Your task to perform on an android device: turn on sleep mode Image 0: 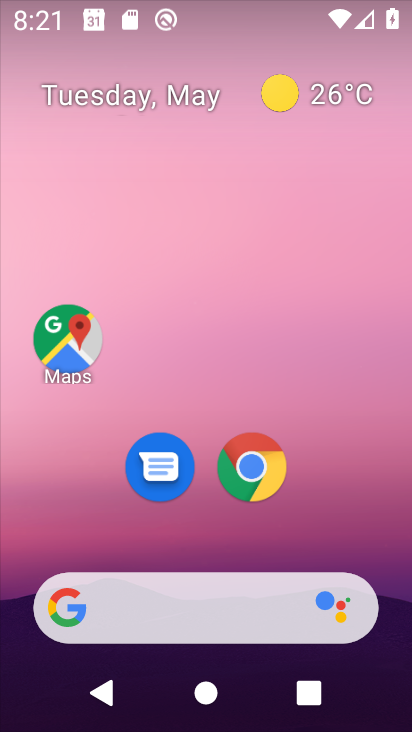
Step 0: drag from (396, 709) to (361, 248)
Your task to perform on an android device: turn on sleep mode Image 1: 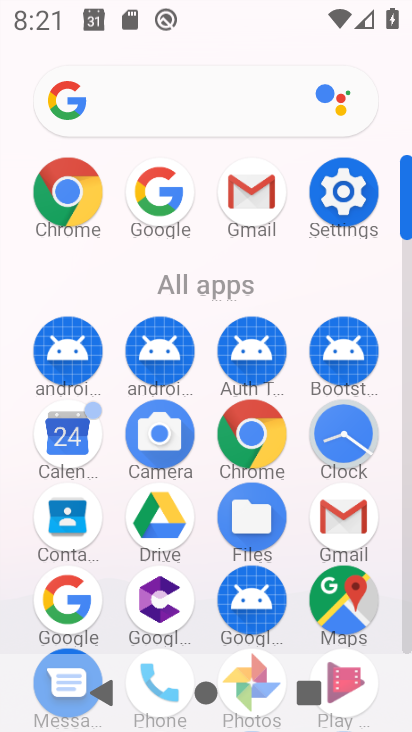
Step 1: click (343, 195)
Your task to perform on an android device: turn on sleep mode Image 2: 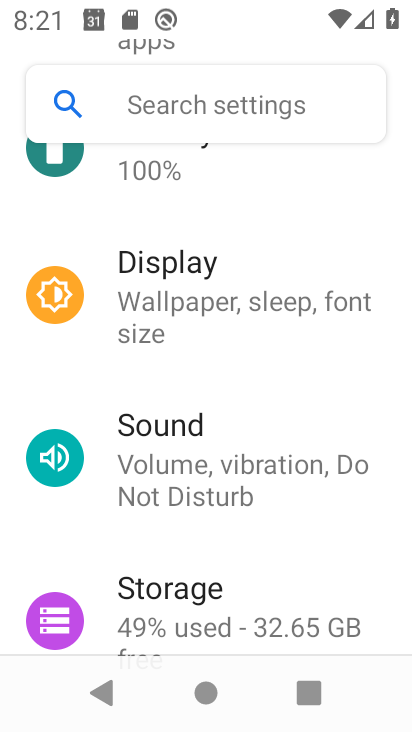
Step 2: click (179, 278)
Your task to perform on an android device: turn on sleep mode Image 3: 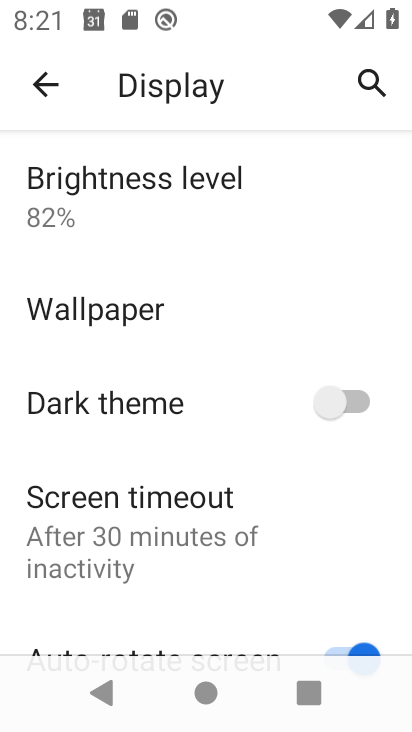
Step 3: click (128, 523)
Your task to perform on an android device: turn on sleep mode Image 4: 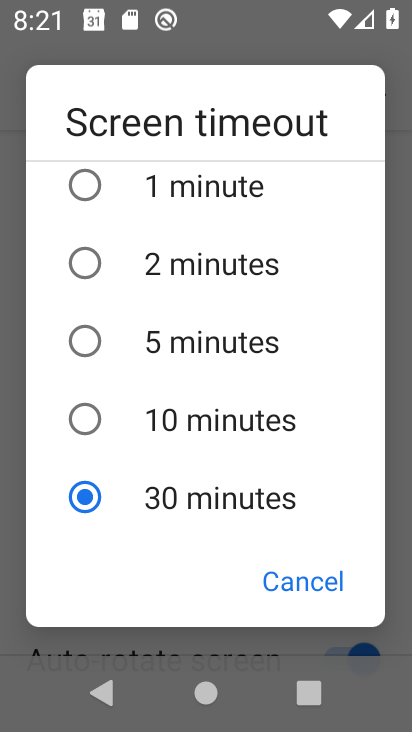
Step 4: task complete